Your task to perform on an android device: Open Yahoo.com Image 0: 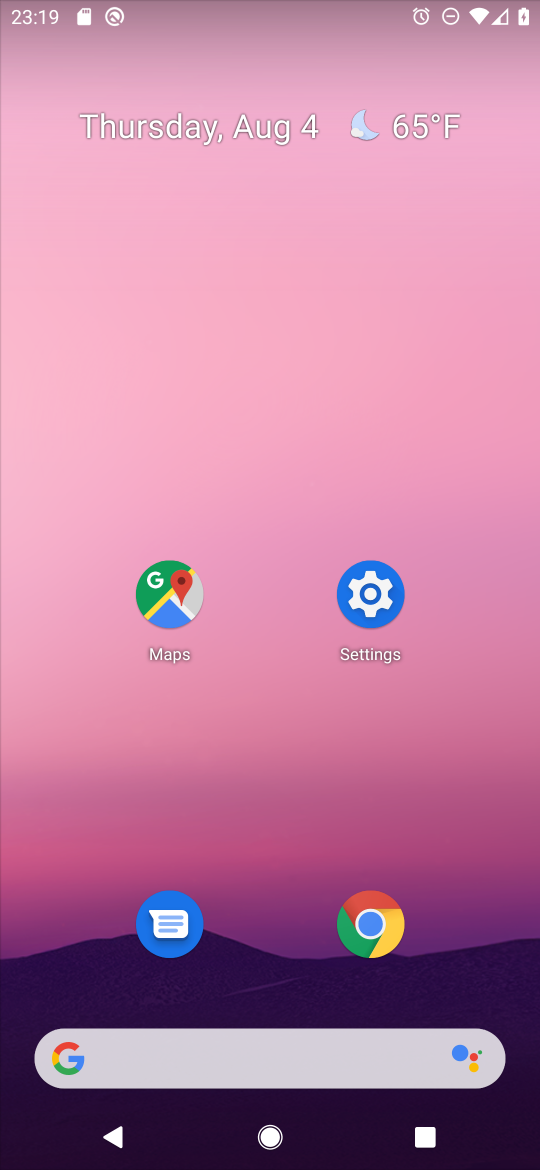
Step 0: press home button
Your task to perform on an android device: Open Yahoo.com Image 1: 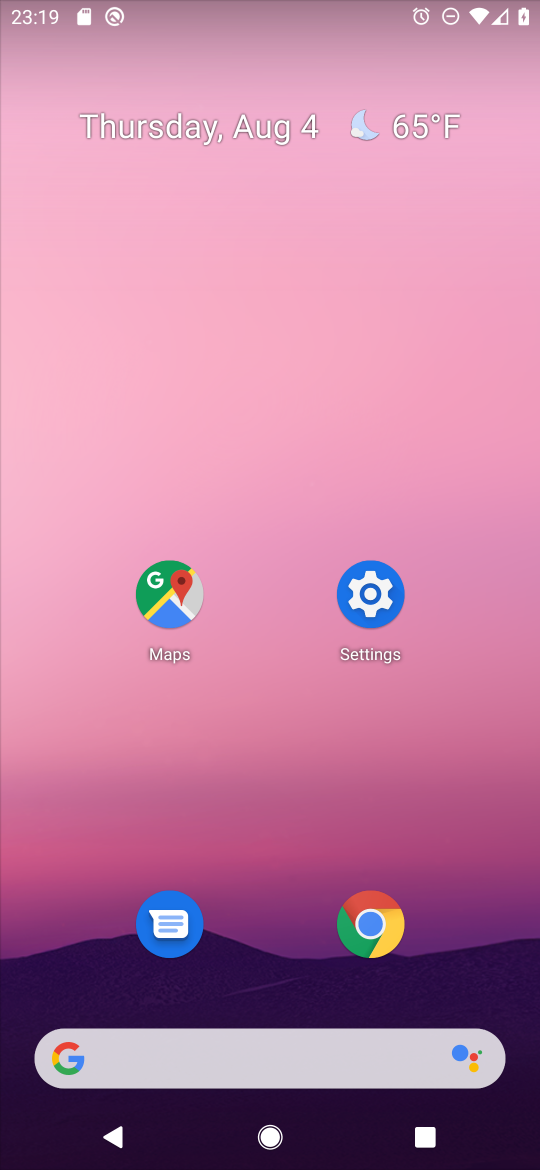
Step 1: click (372, 924)
Your task to perform on an android device: Open Yahoo.com Image 2: 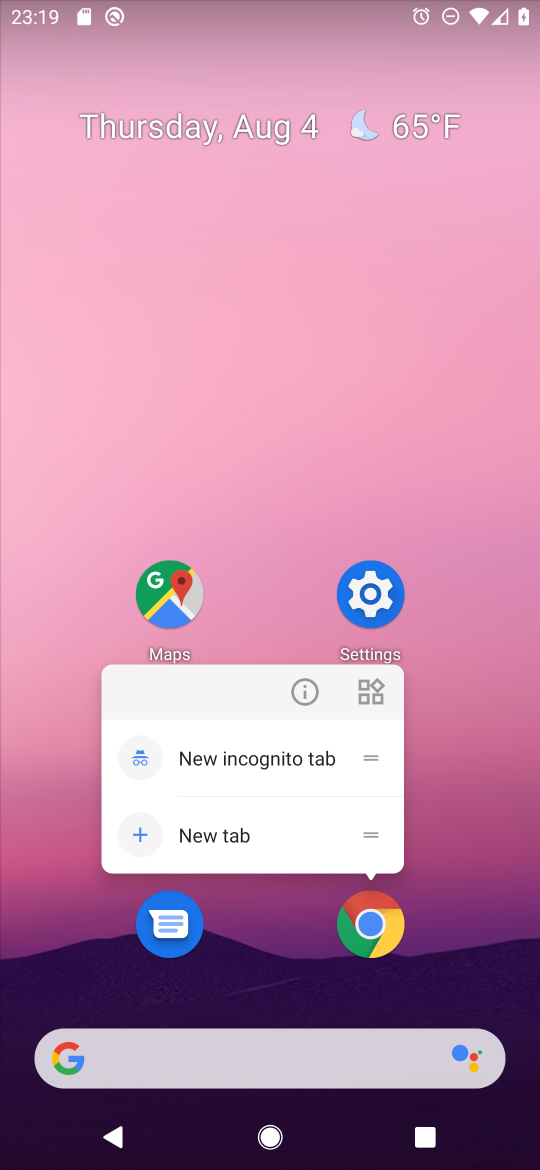
Step 2: click (372, 925)
Your task to perform on an android device: Open Yahoo.com Image 3: 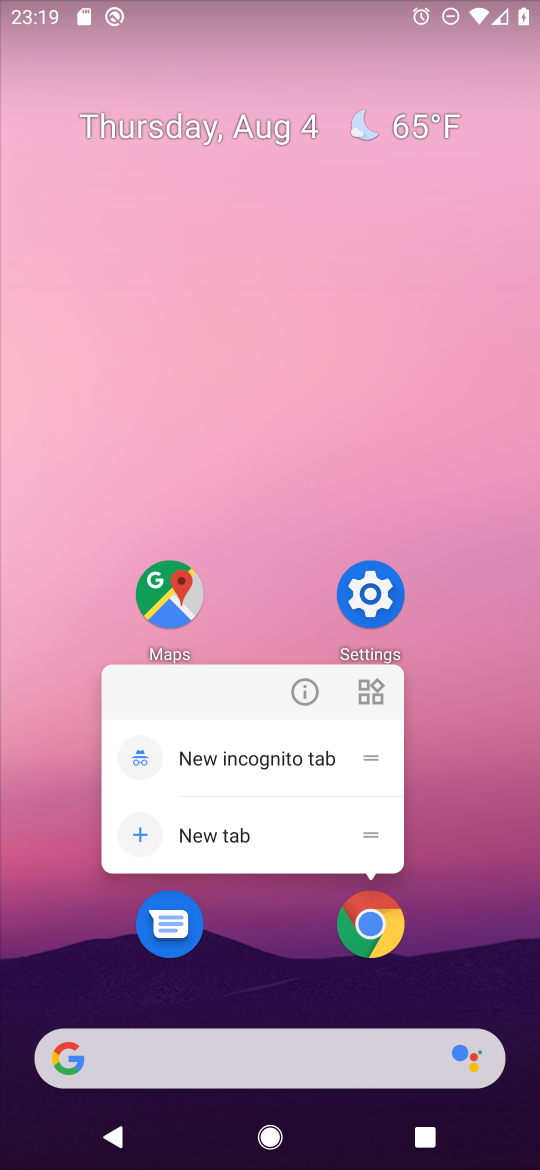
Step 3: click (372, 925)
Your task to perform on an android device: Open Yahoo.com Image 4: 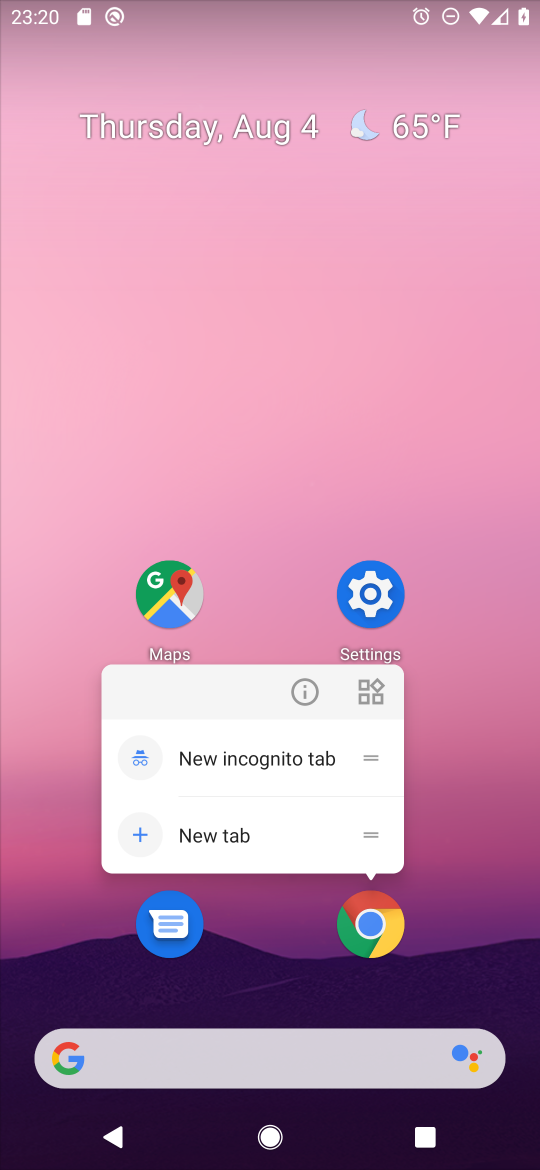
Step 4: click (372, 926)
Your task to perform on an android device: Open Yahoo.com Image 5: 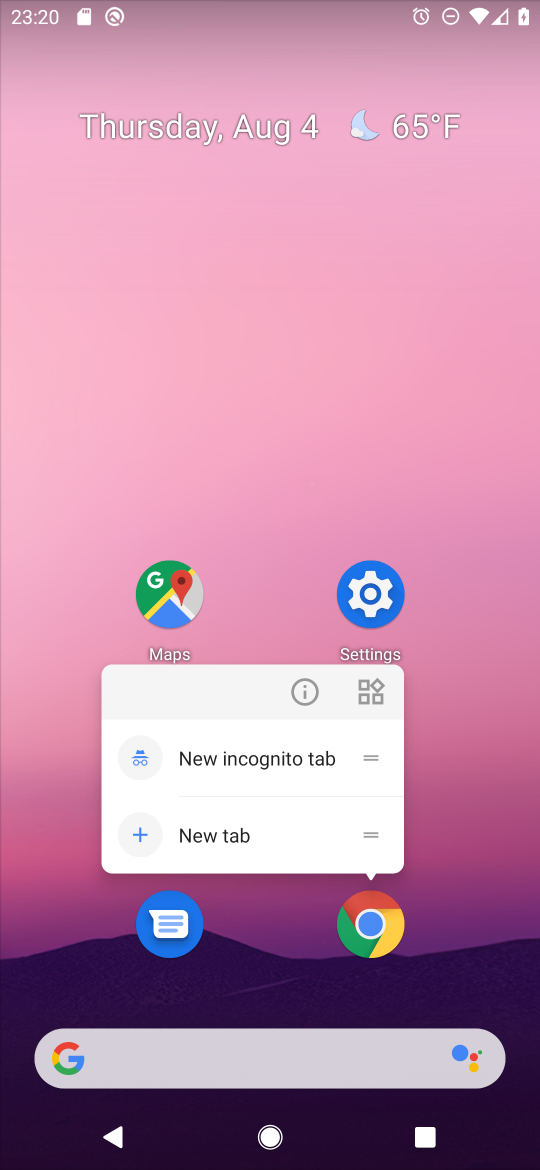
Step 5: click (372, 928)
Your task to perform on an android device: Open Yahoo.com Image 6: 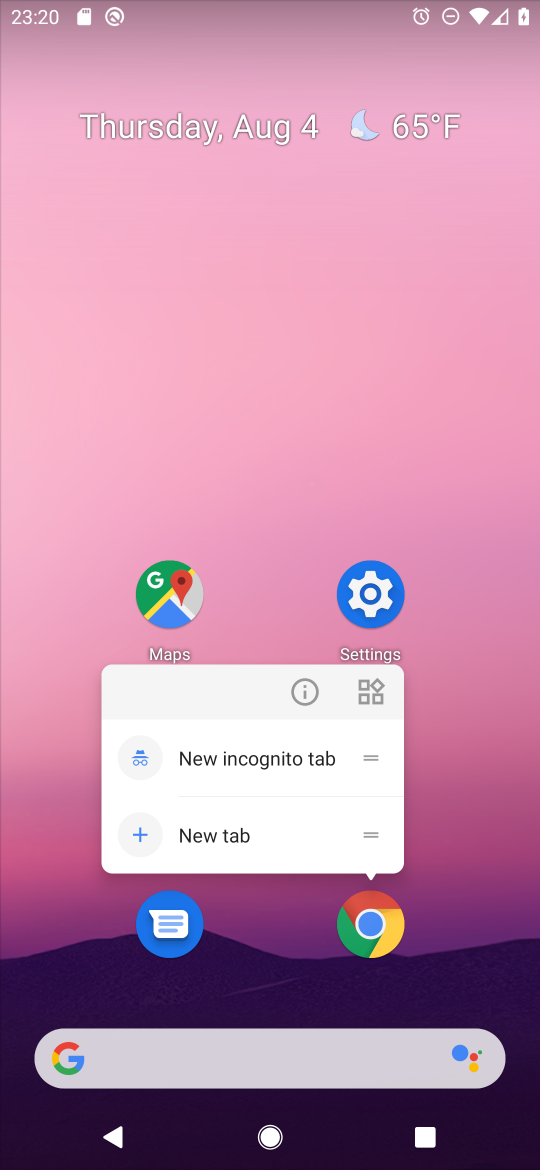
Step 6: click (372, 929)
Your task to perform on an android device: Open Yahoo.com Image 7: 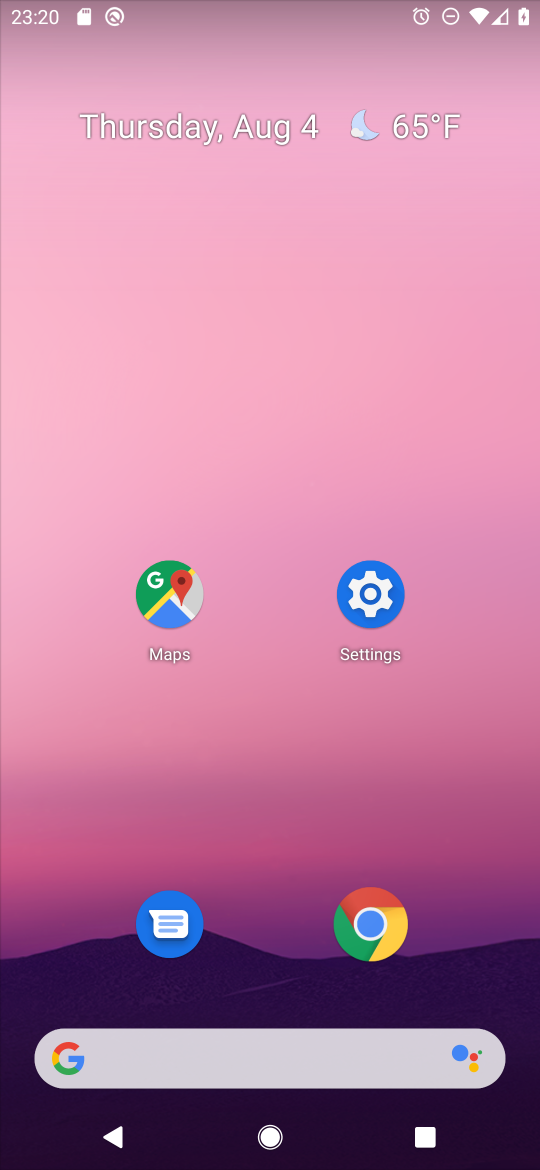
Step 7: click (372, 929)
Your task to perform on an android device: Open Yahoo.com Image 8: 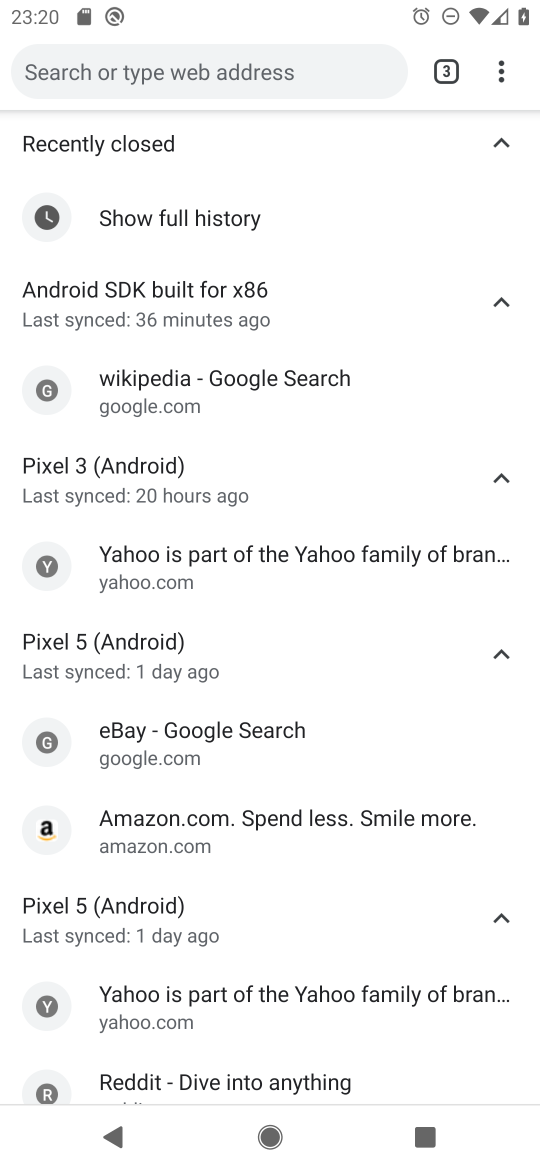
Step 8: drag from (508, 67) to (330, 148)
Your task to perform on an android device: Open Yahoo.com Image 9: 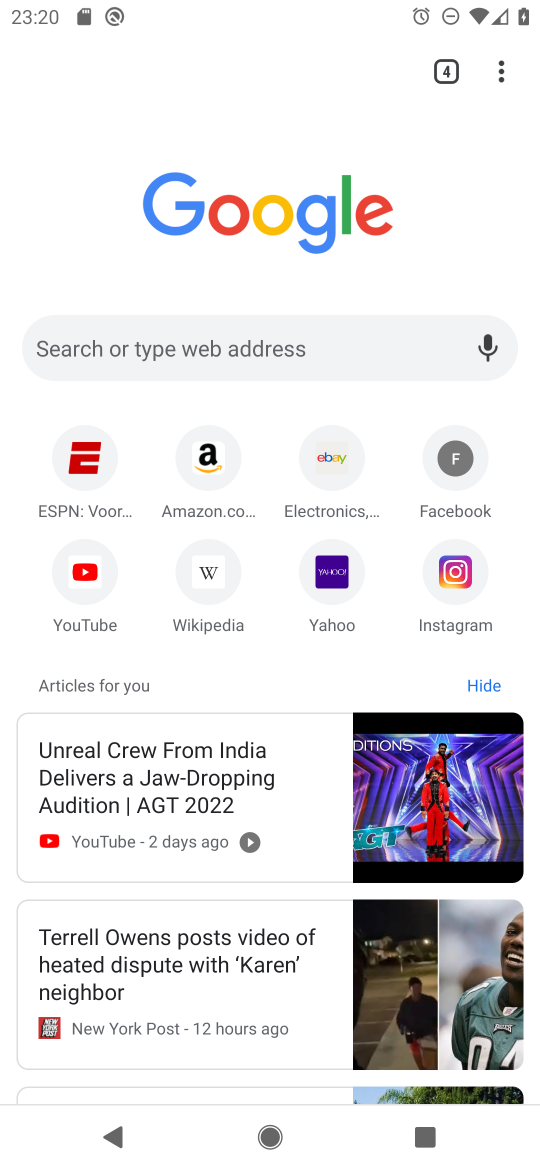
Step 9: click (330, 569)
Your task to perform on an android device: Open Yahoo.com Image 10: 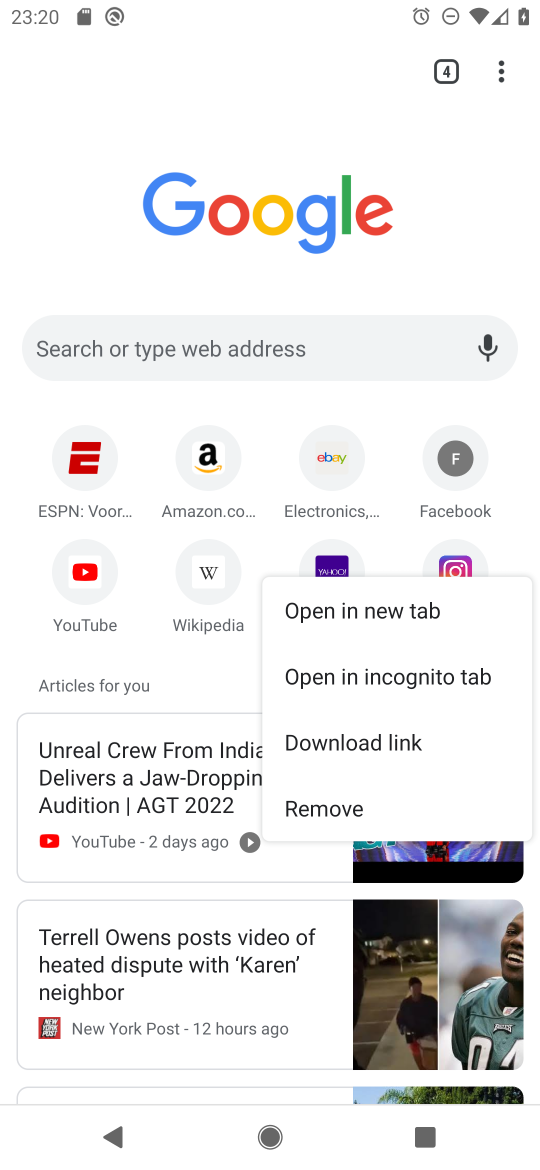
Step 10: click (331, 564)
Your task to perform on an android device: Open Yahoo.com Image 11: 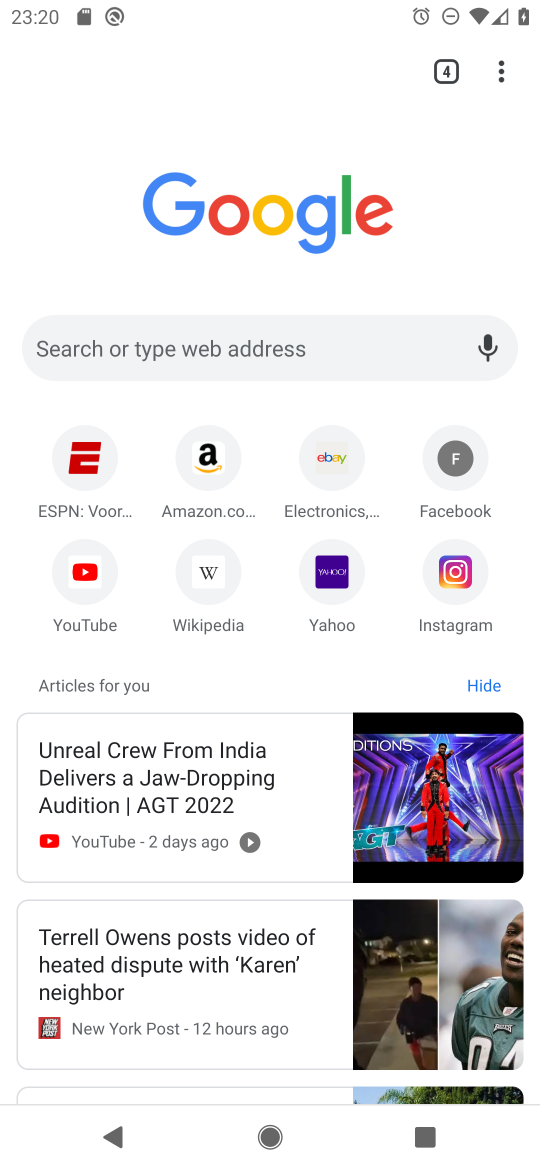
Step 11: click (329, 568)
Your task to perform on an android device: Open Yahoo.com Image 12: 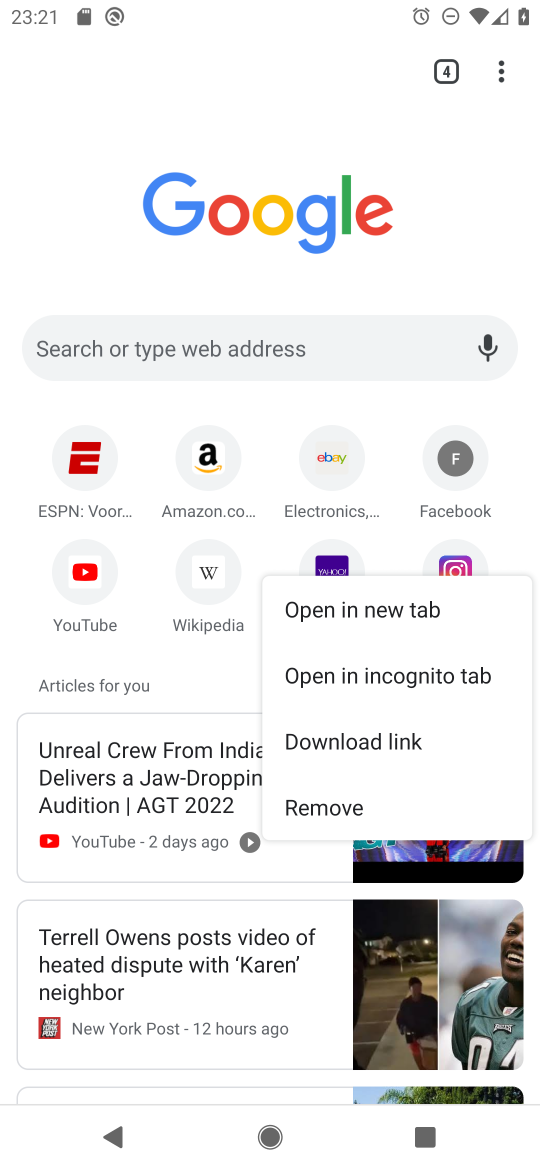
Step 12: click (329, 569)
Your task to perform on an android device: Open Yahoo.com Image 13: 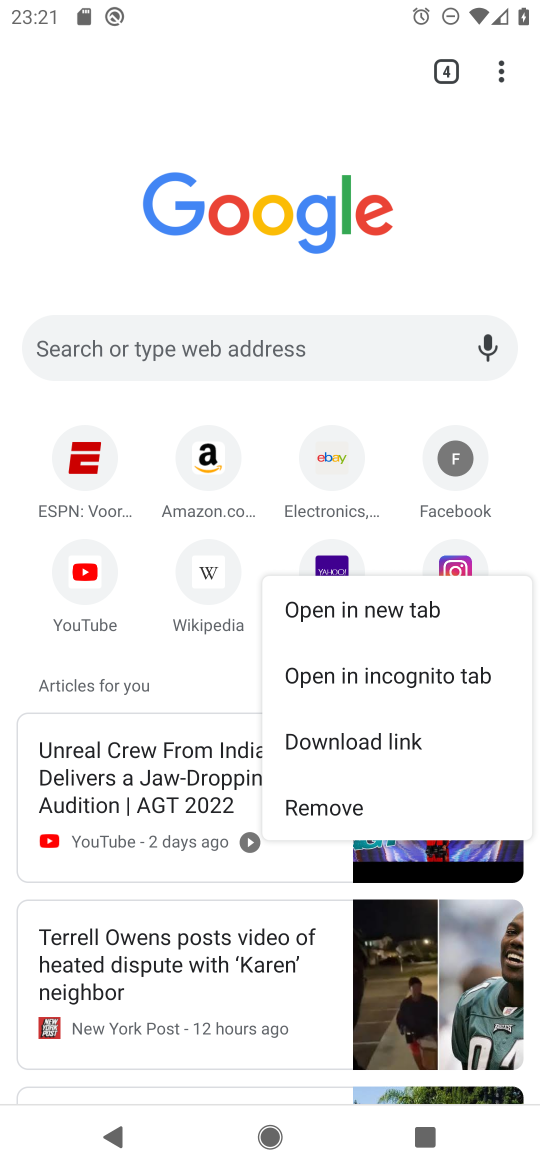
Step 13: click (341, 564)
Your task to perform on an android device: Open Yahoo.com Image 14: 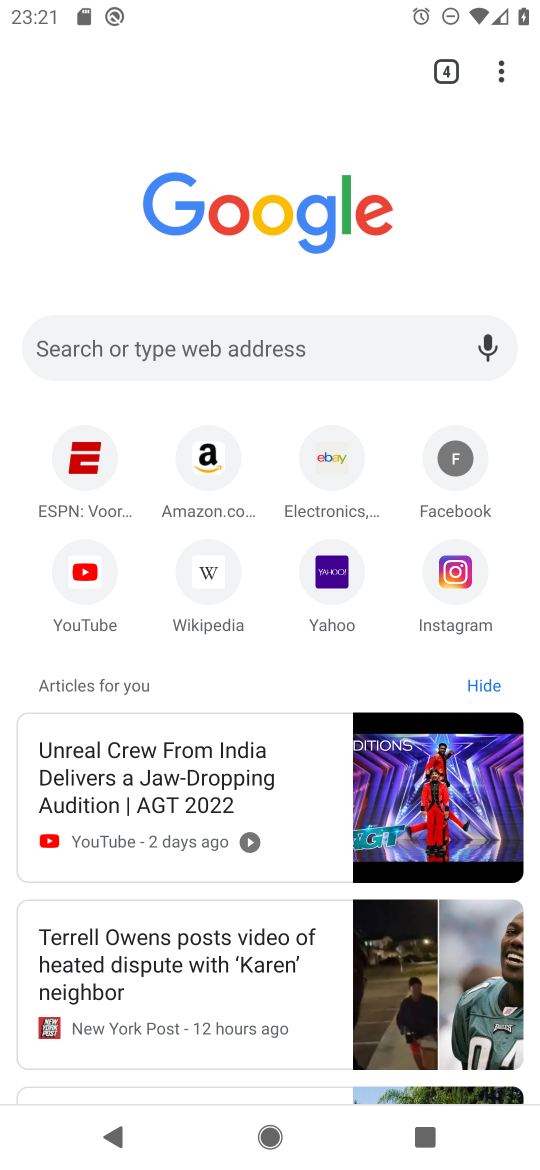
Step 14: click (337, 570)
Your task to perform on an android device: Open Yahoo.com Image 15: 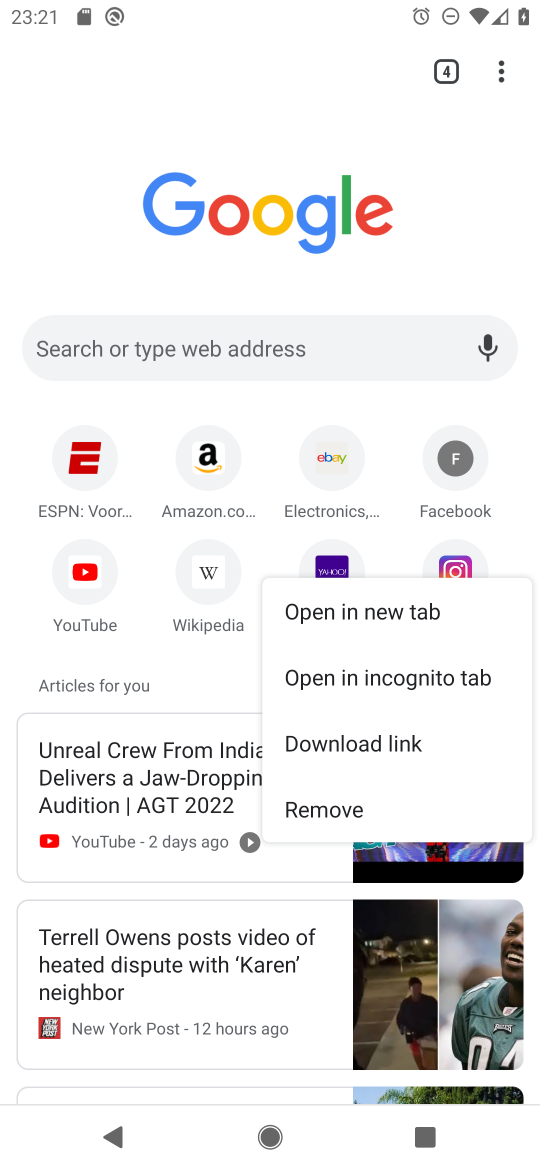
Step 15: click (330, 570)
Your task to perform on an android device: Open Yahoo.com Image 16: 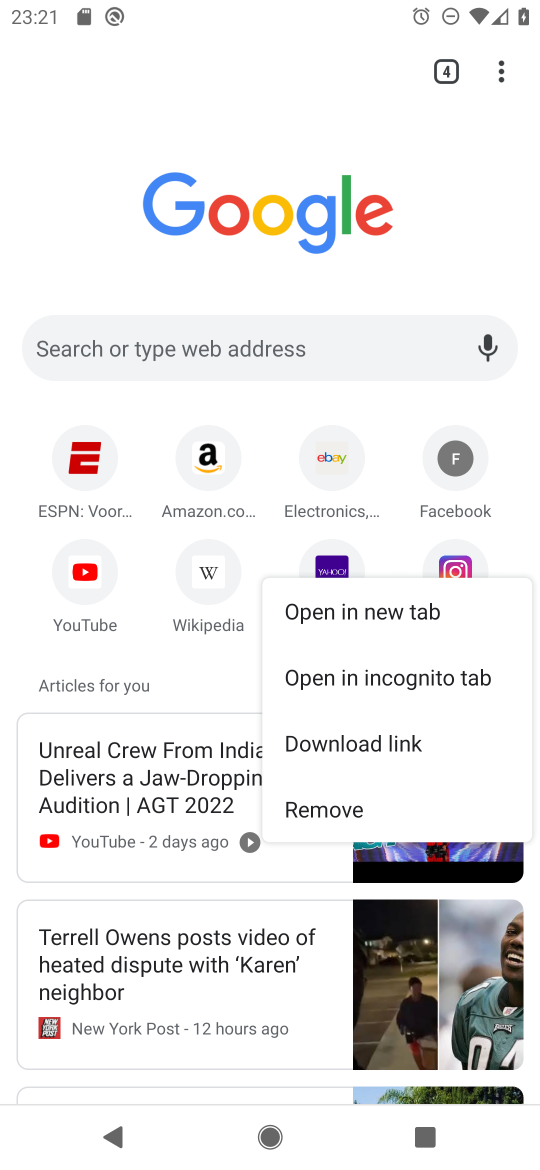
Step 16: click (334, 568)
Your task to perform on an android device: Open Yahoo.com Image 17: 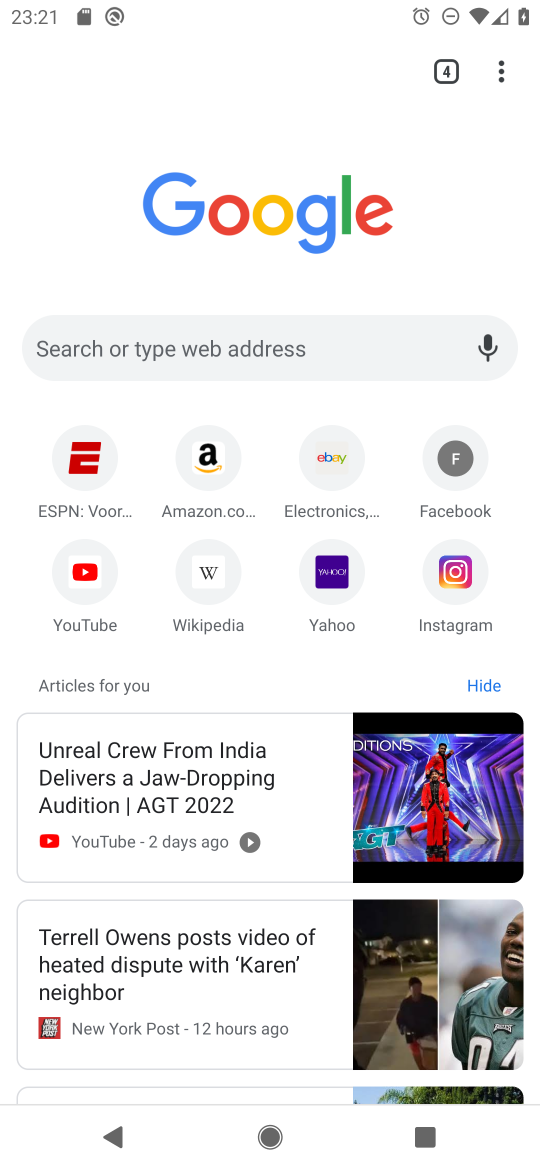
Step 17: click (336, 579)
Your task to perform on an android device: Open Yahoo.com Image 18: 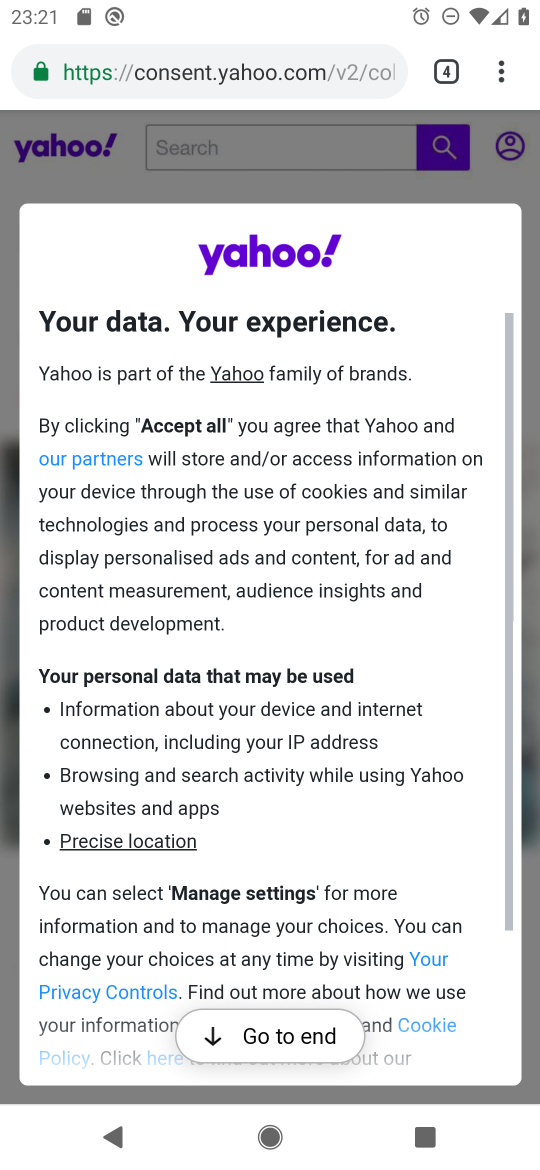
Step 18: click (292, 1046)
Your task to perform on an android device: Open Yahoo.com Image 19: 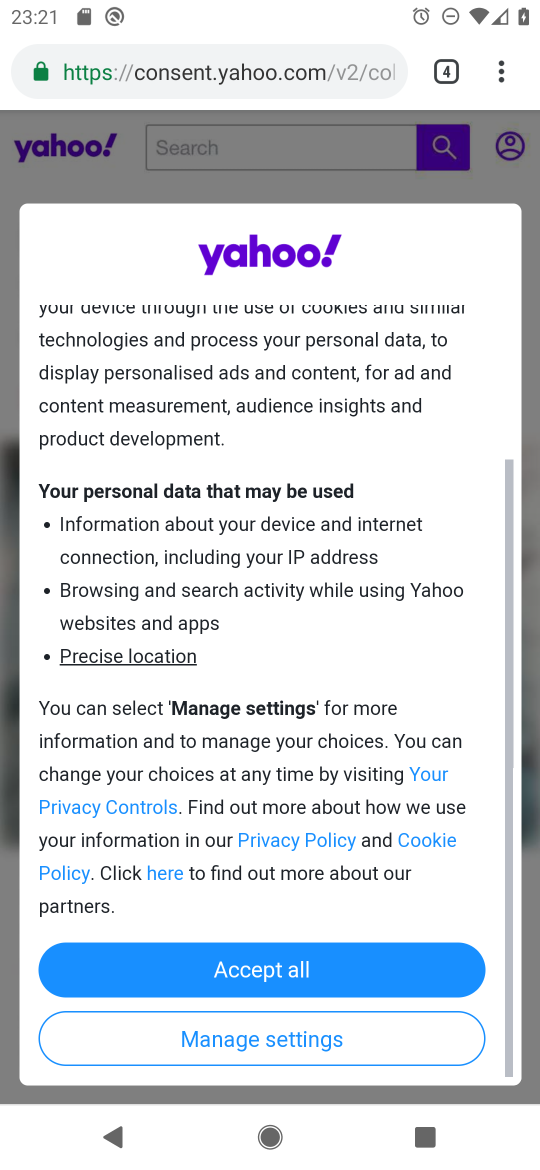
Step 19: click (287, 964)
Your task to perform on an android device: Open Yahoo.com Image 20: 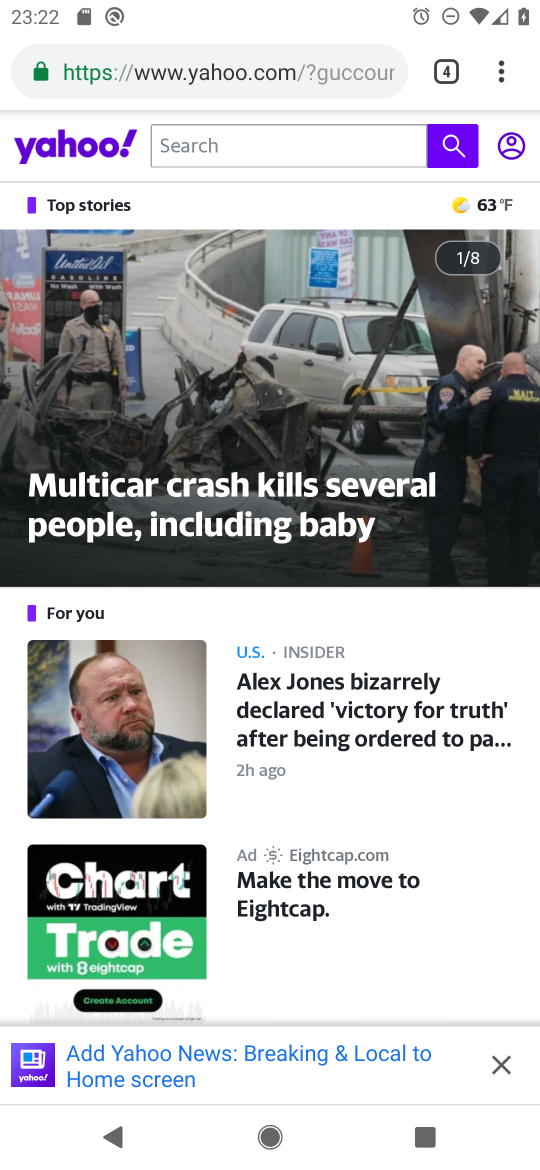
Step 20: task complete